Your task to perform on an android device: change the clock display to analog Image 0: 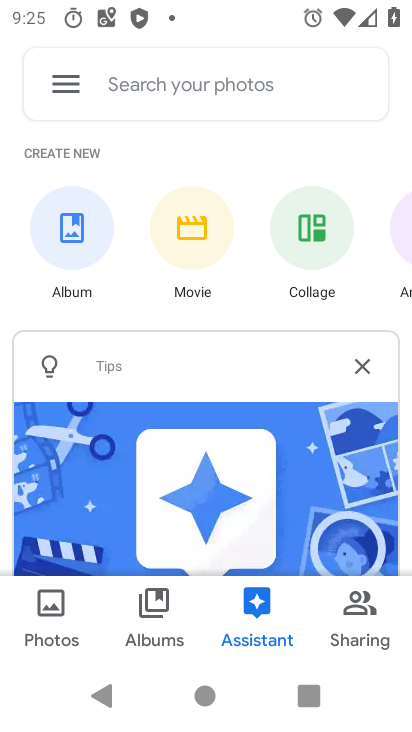
Step 0: press home button
Your task to perform on an android device: change the clock display to analog Image 1: 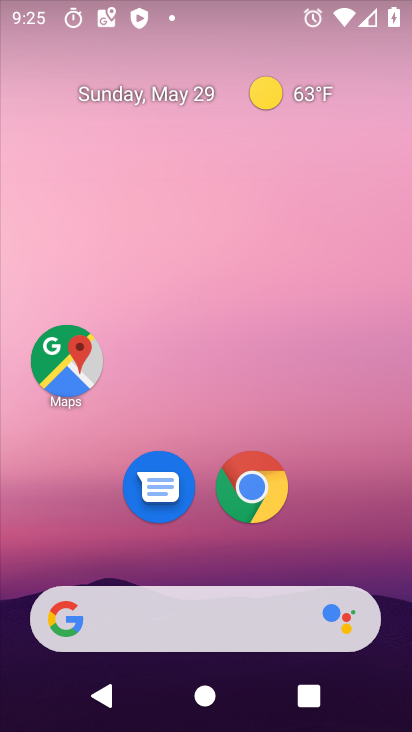
Step 1: drag from (229, 557) to (219, 161)
Your task to perform on an android device: change the clock display to analog Image 2: 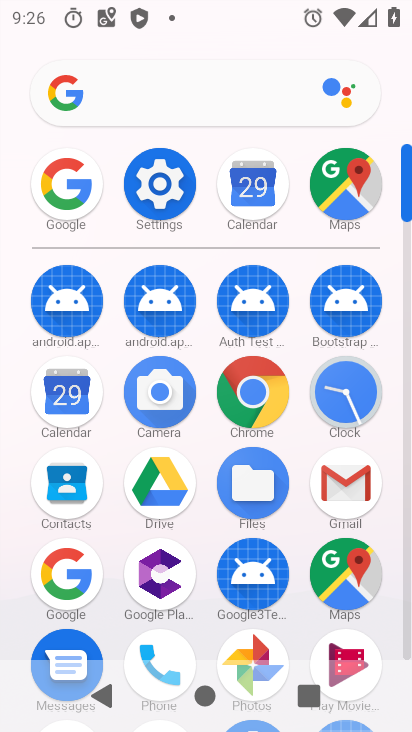
Step 2: click (349, 419)
Your task to perform on an android device: change the clock display to analog Image 3: 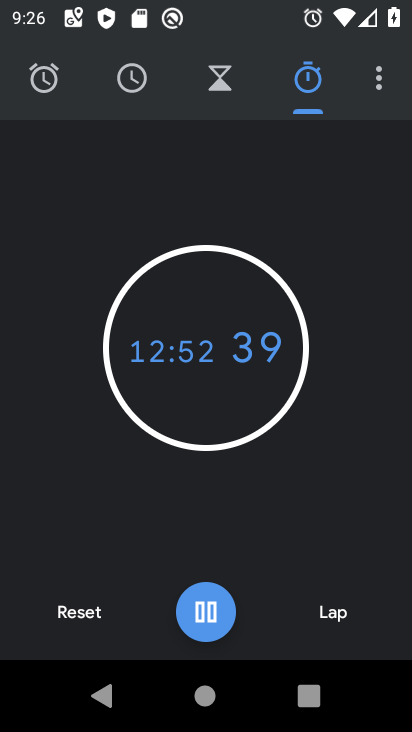
Step 3: click (386, 95)
Your task to perform on an android device: change the clock display to analog Image 4: 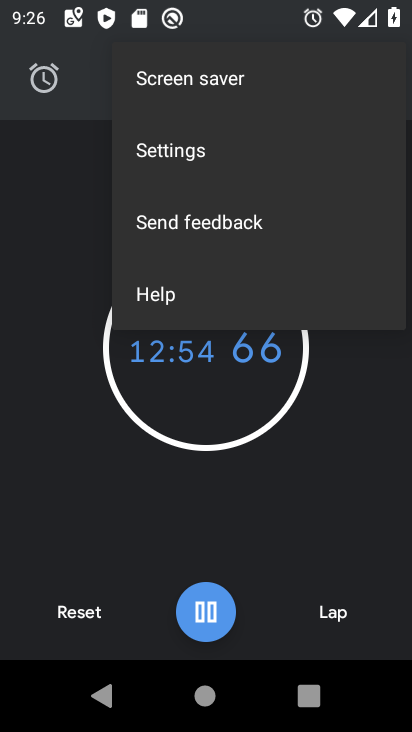
Step 4: click (212, 158)
Your task to perform on an android device: change the clock display to analog Image 5: 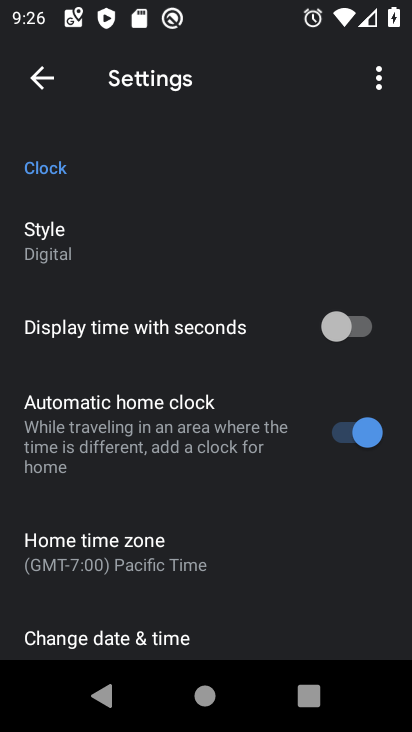
Step 5: drag from (150, 428) to (143, 207)
Your task to perform on an android device: change the clock display to analog Image 6: 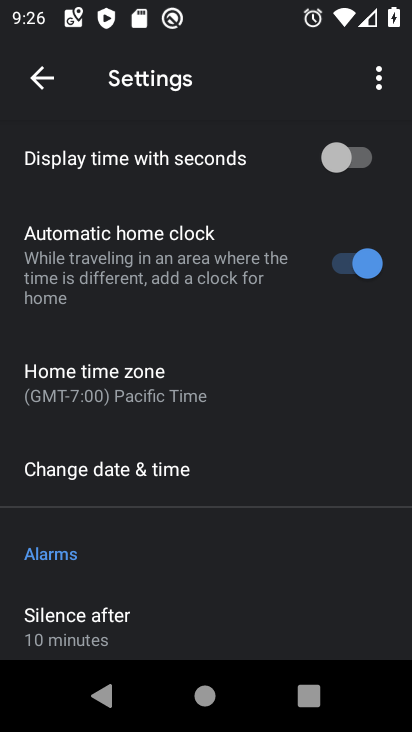
Step 6: drag from (139, 460) to (147, 308)
Your task to perform on an android device: change the clock display to analog Image 7: 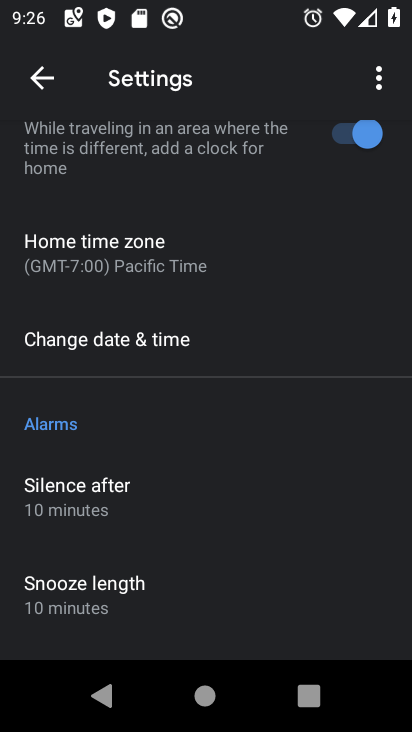
Step 7: drag from (112, 583) to (160, 707)
Your task to perform on an android device: change the clock display to analog Image 8: 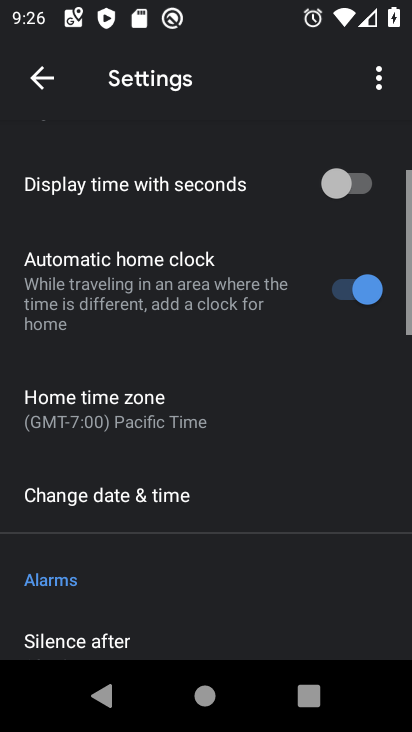
Step 8: drag from (194, 289) to (208, 726)
Your task to perform on an android device: change the clock display to analog Image 9: 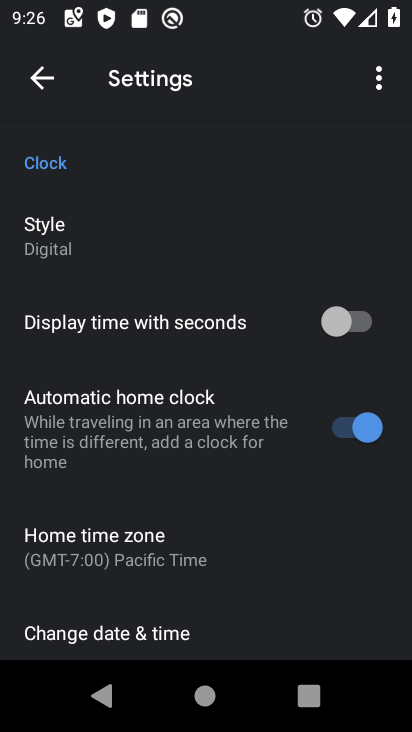
Step 9: click (163, 255)
Your task to perform on an android device: change the clock display to analog Image 10: 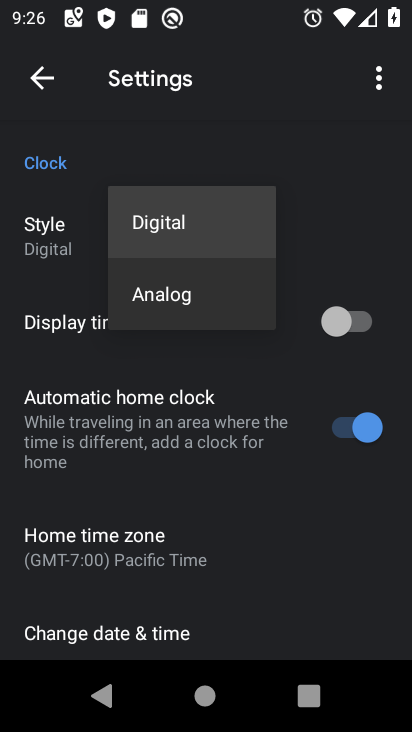
Step 10: click (177, 283)
Your task to perform on an android device: change the clock display to analog Image 11: 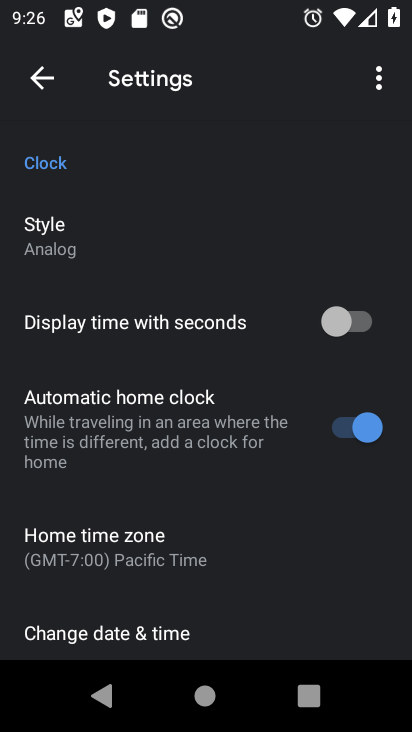
Step 11: task complete